Your task to perform on an android device: Show me productivity apps on the Play Store Image 0: 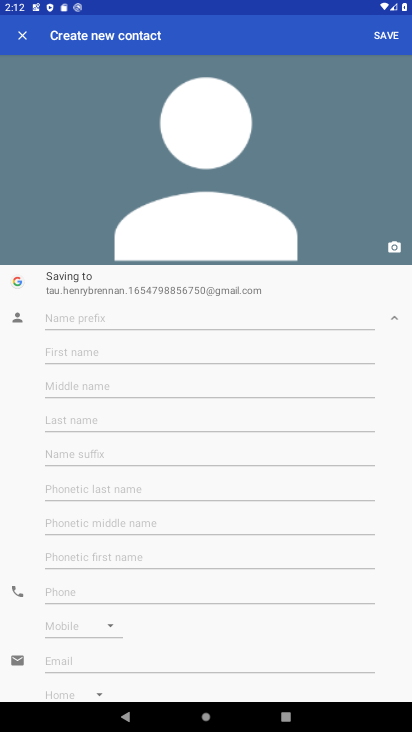
Step 0: press home button
Your task to perform on an android device: Show me productivity apps on the Play Store Image 1: 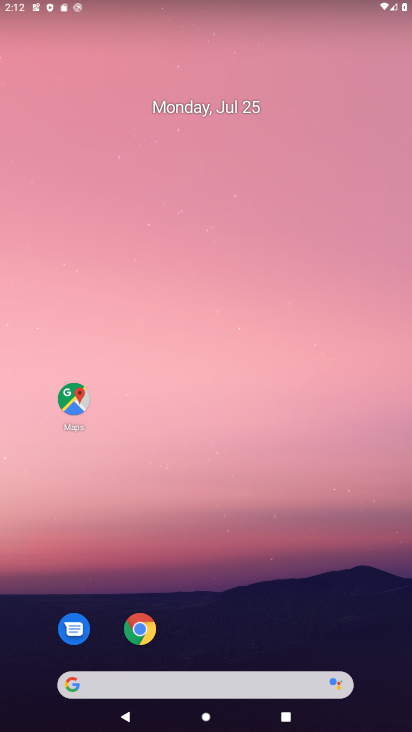
Step 1: drag from (56, 595) to (207, 176)
Your task to perform on an android device: Show me productivity apps on the Play Store Image 2: 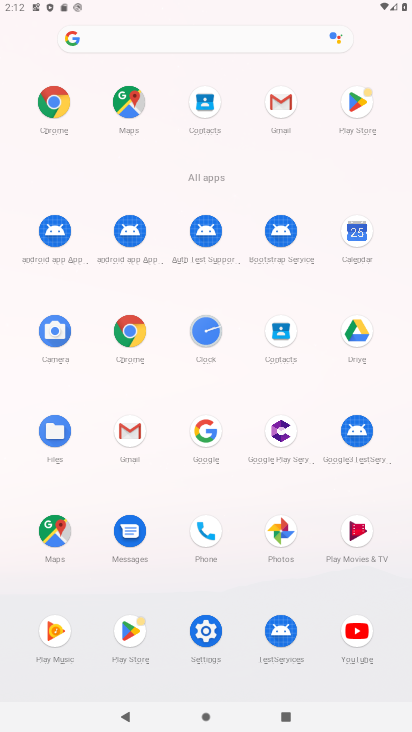
Step 2: click (130, 636)
Your task to perform on an android device: Show me productivity apps on the Play Store Image 3: 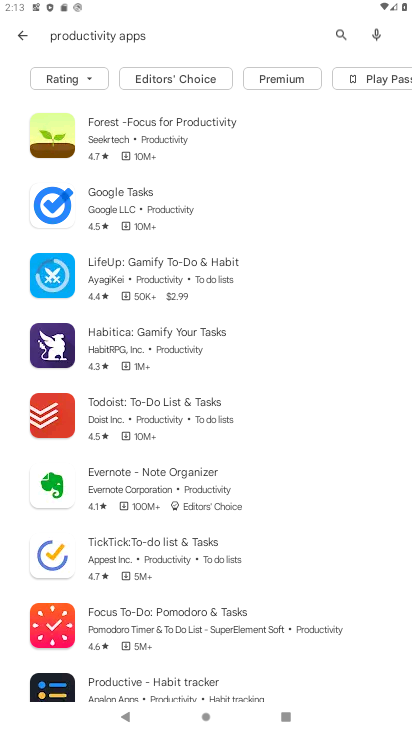
Step 3: task complete